Your task to perform on an android device: turn smart compose on in the gmail app Image 0: 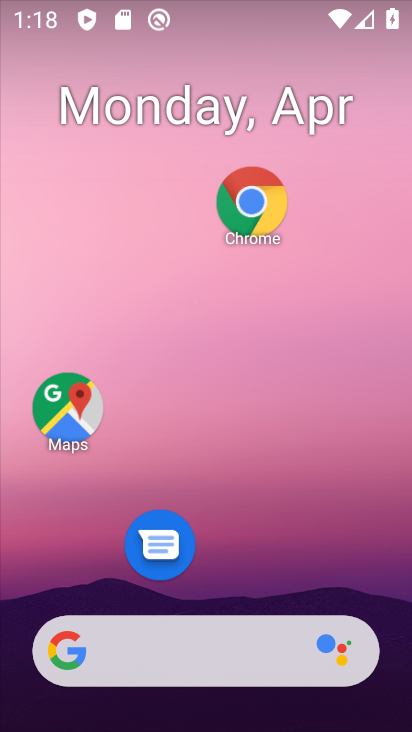
Step 0: drag from (210, 606) to (175, 112)
Your task to perform on an android device: turn smart compose on in the gmail app Image 1: 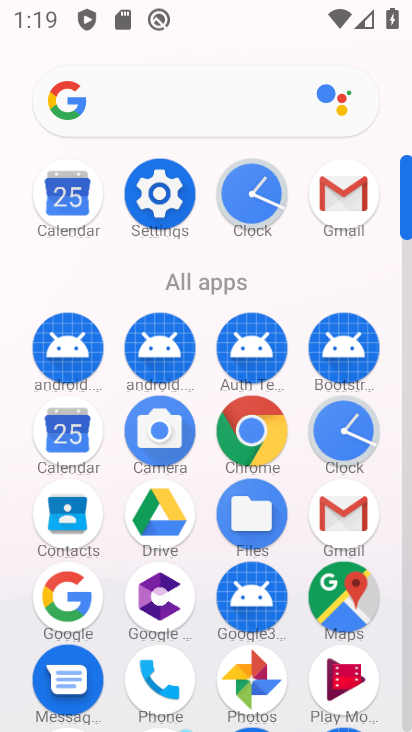
Step 1: click (345, 515)
Your task to perform on an android device: turn smart compose on in the gmail app Image 2: 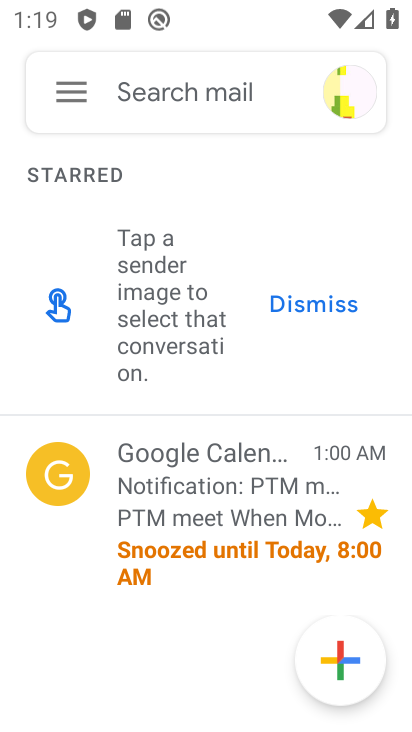
Step 2: click (79, 89)
Your task to perform on an android device: turn smart compose on in the gmail app Image 3: 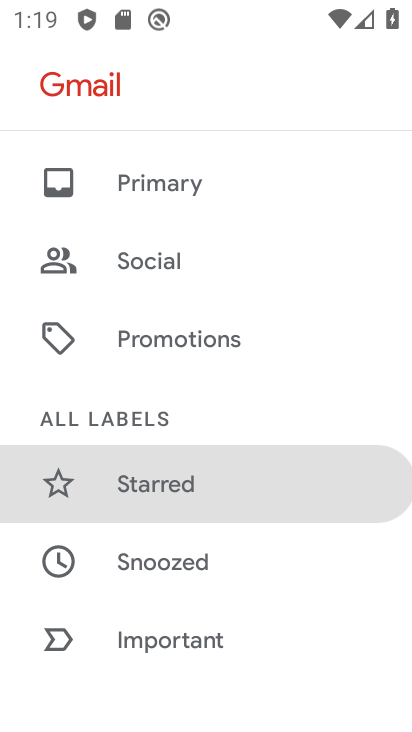
Step 3: drag from (128, 597) to (207, 208)
Your task to perform on an android device: turn smart compose on in the gmail app Image 4: 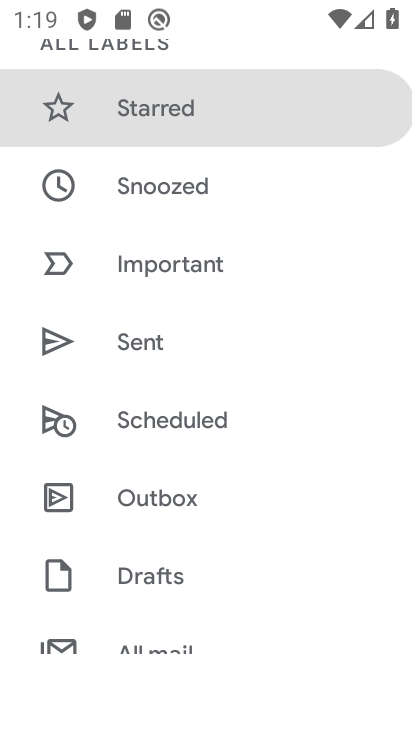
Step 4: drag from (134, 588) to (191, 197)
Your task to perform on an android device: turn smart compose on in the gmail app Image 5: 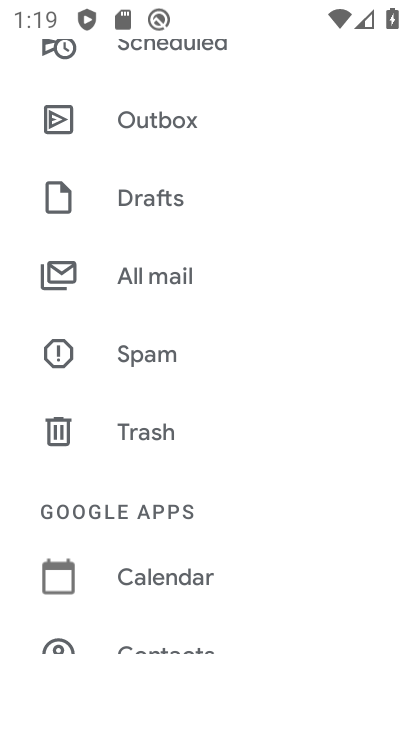
Step 5: drag from (166, 560) to (231, 156)
Your task to perform on an android device: turn smart compose on in the gmail app Image 6: 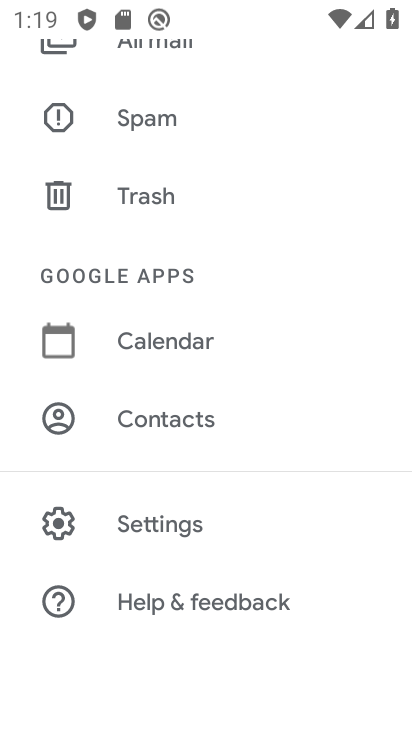
Step 6: drag from (123, 628) to (157, 246)
Your task to perform on an android device: turn smart compose on in the gmail app Image 7: 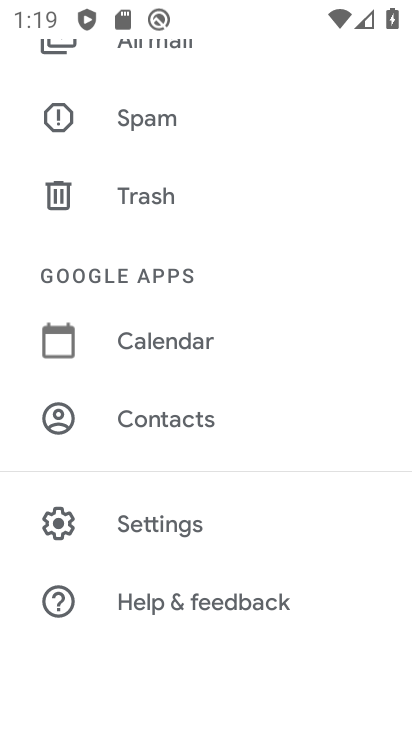
Step 7: click (154, 525)
Your task to perform on an android device: turn smart compose on in the gmail app Image 8: 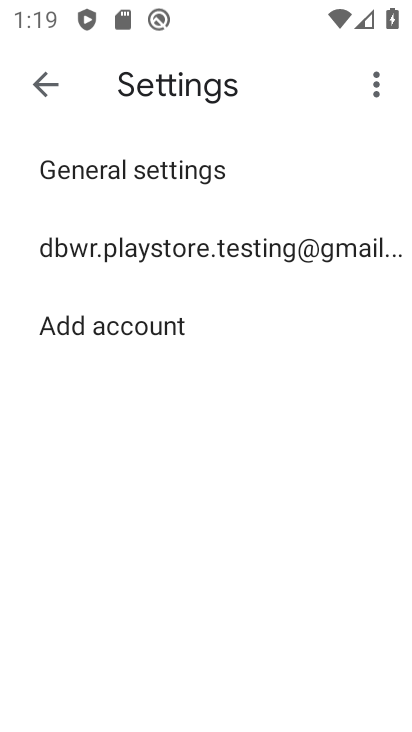
Step 8: click (143, 247)
Your task to perform on an android device: turn smart compose on in the gmail app Image 9: 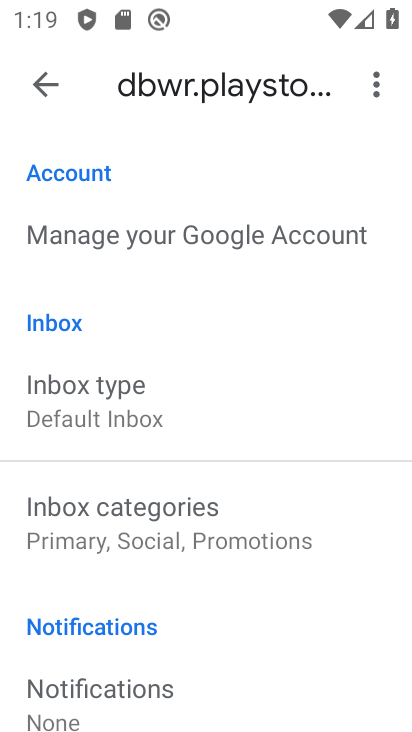
Step 9: task complete